Your task to perform on an android device: How do I get to the nearest Burger King? Image 0: 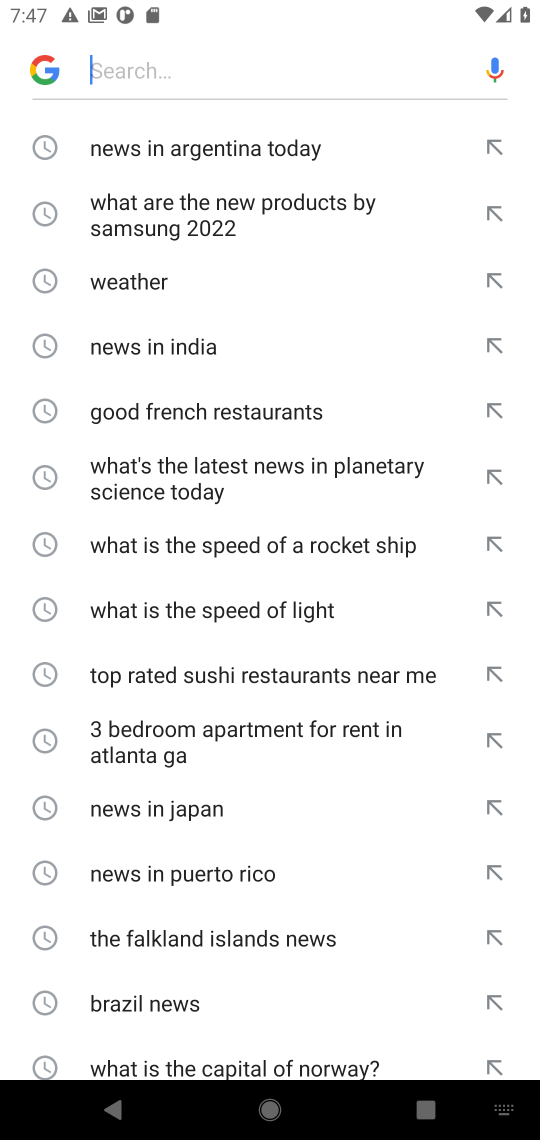
Step 0: press home button
Your task to perform on an android device: How do I get to the nearest Burger King? Image 1: 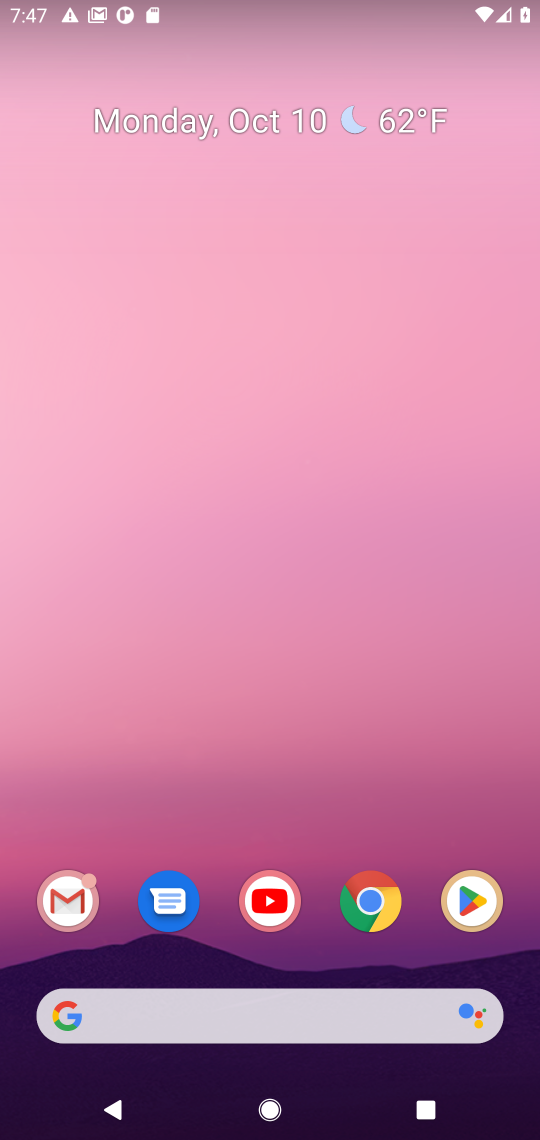
Step 1: drag from (378, 1019) to (386, 483)
Your task to perform on an android device: How do I get to the nearest Burger King? Image 2: 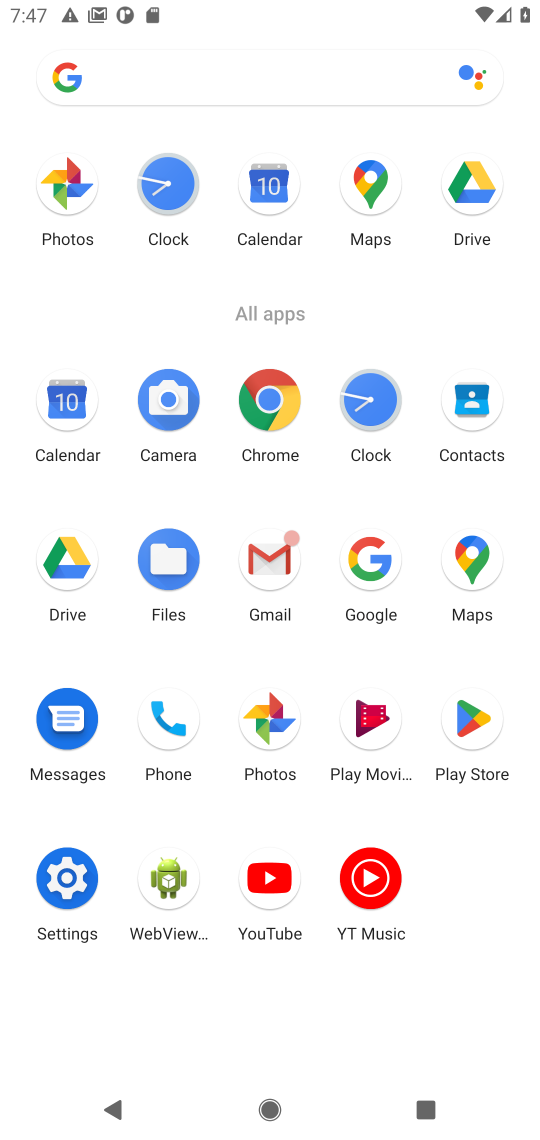
Step 2: click (376, 582)
Your task to perform on an android device: How do I get to the nearest Burger King? Image 3: 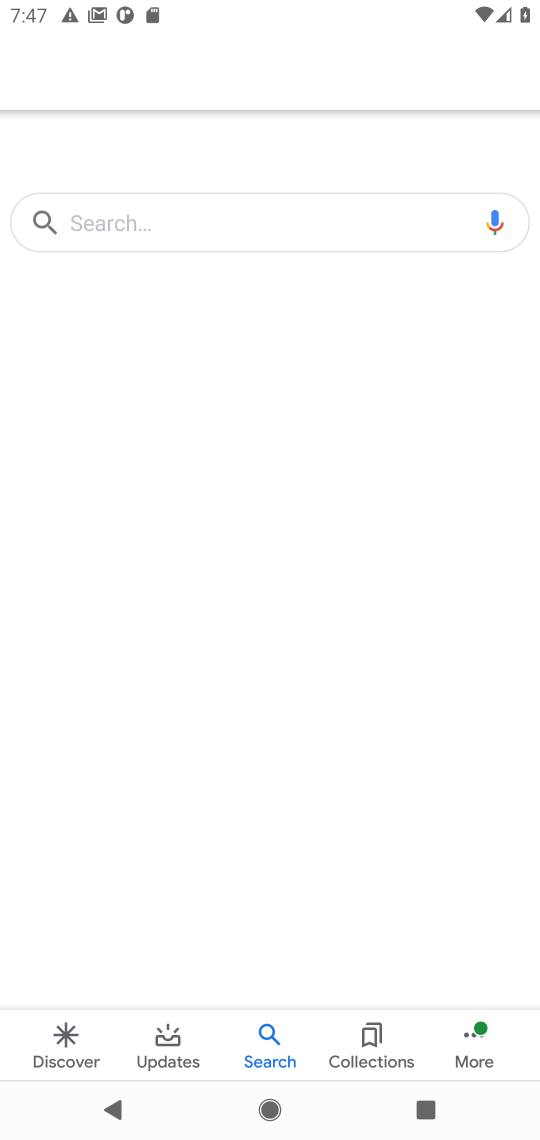
Step 3: click (348, 214)
Your task to perform on an android device: How do I get to the nearest Burger King? Image 4: 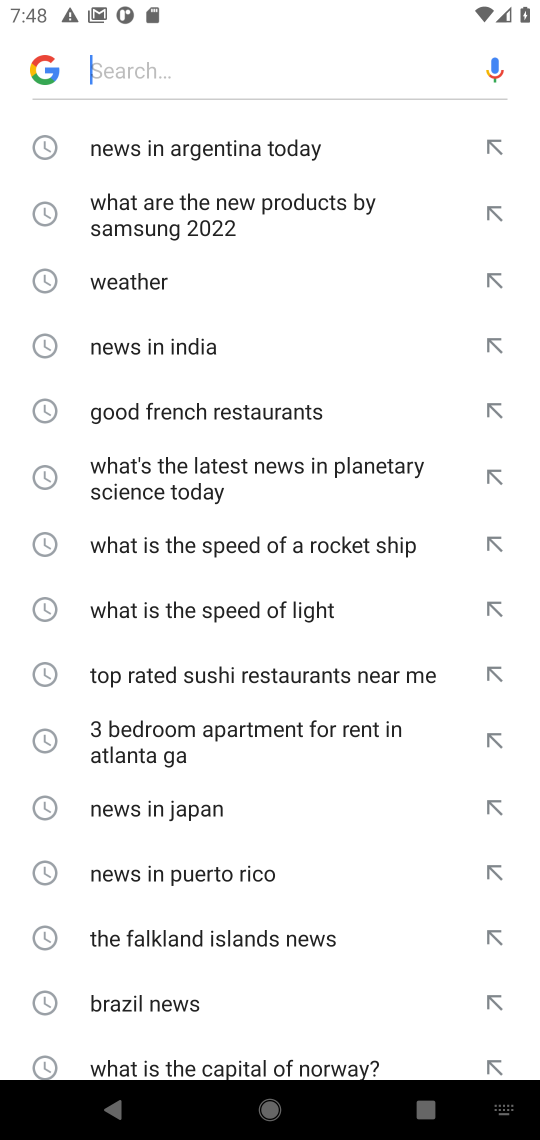
Step 4: type "How do I get to the nearest Burger King?"
Your task to perform on an android device: How do I get to the nearest Burger King? Image 5: 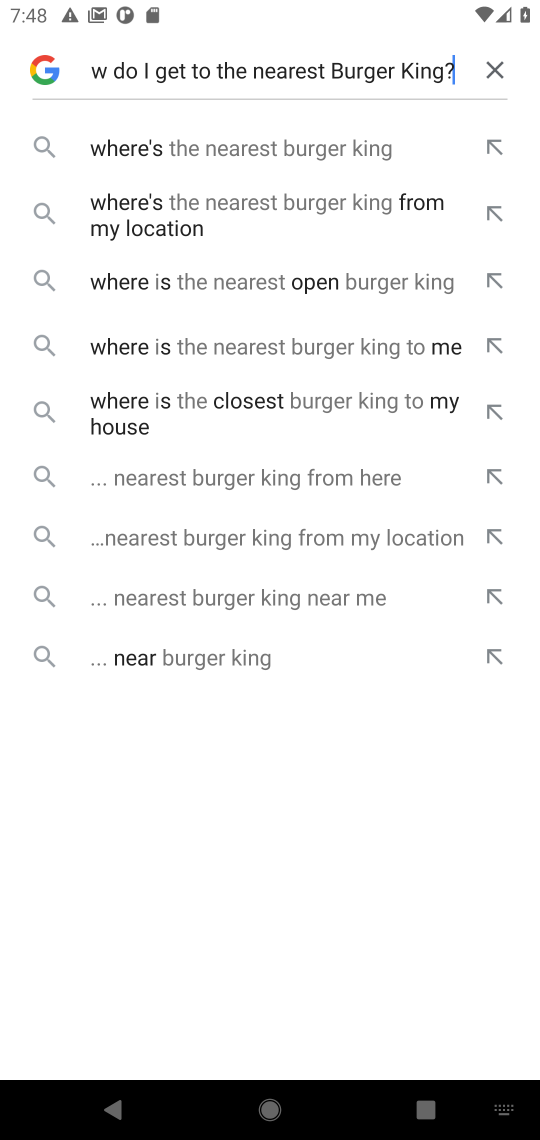
Step 5: click (303, 153)
Your task to perform on an android device: How do I get to the nearest Burger King? Image 6: 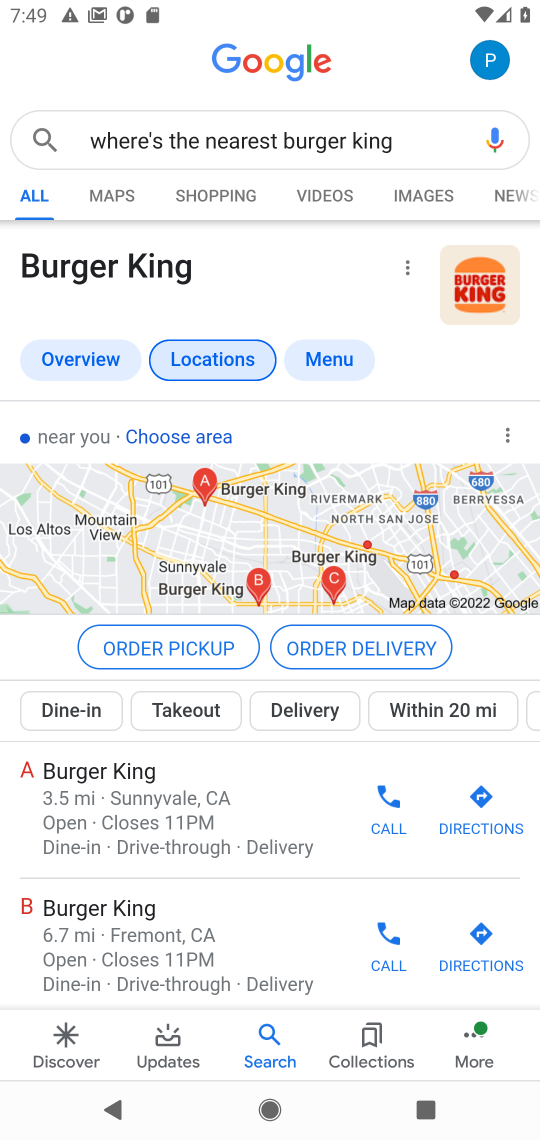
Step 6: task complete